Your task to perform on an android device: See recent photos Image 0: 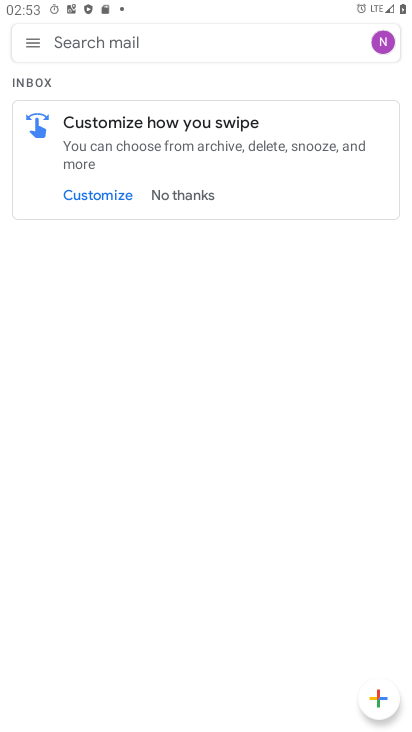
Step 0: press home button
Your task to perform on an android device: See recent photos Image 1: 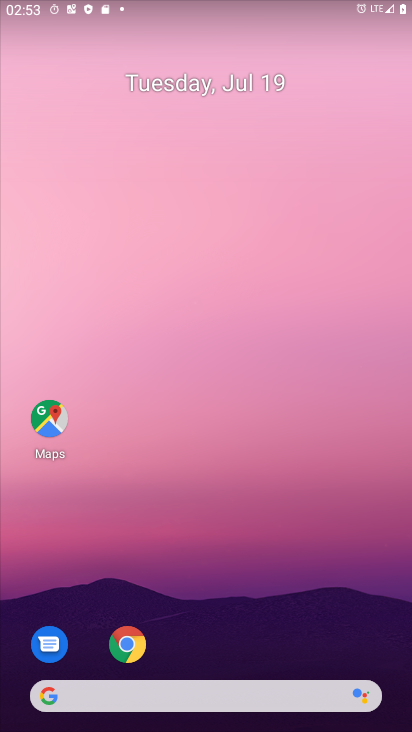
Step 1: drag from (231, 721) to (229, 252)
Your task to perform on an android device: See recent photos Image 2: 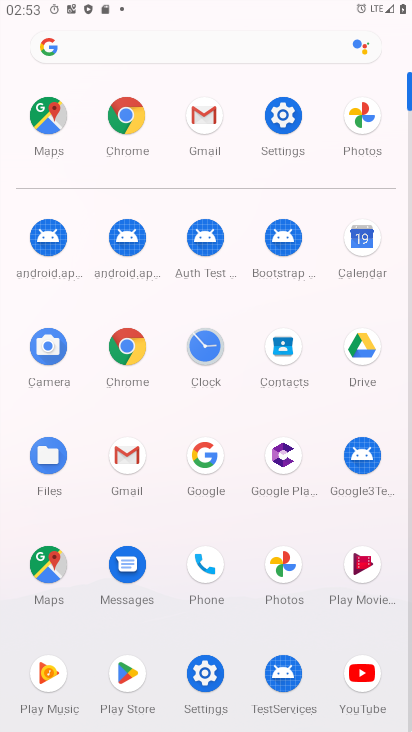
Step 2: click (284, 560)
Your task to perform on an android device: See recent photos Image 3: 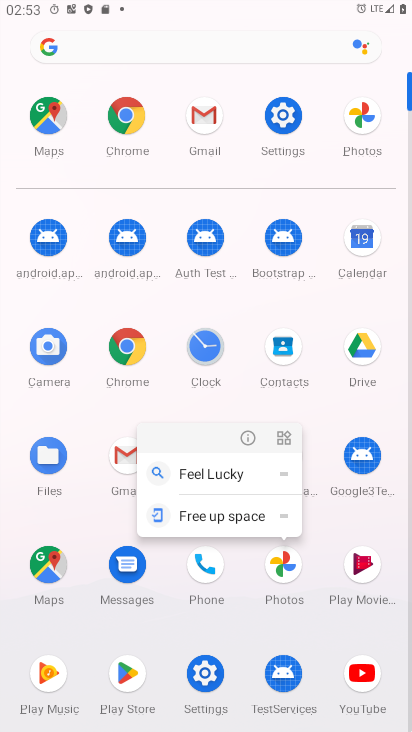
Step 3: click (283, 555)
Your task to perform on an android device: See recent photos Image 4: 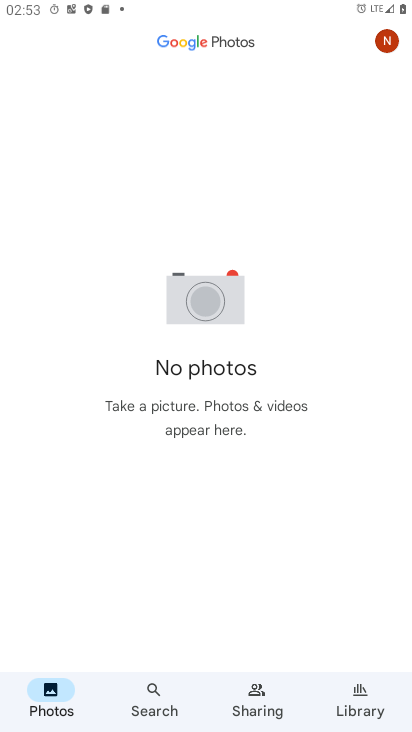
Step 4: click (55, 693)
Your task to perform on an android device: See recent photos Image 5: 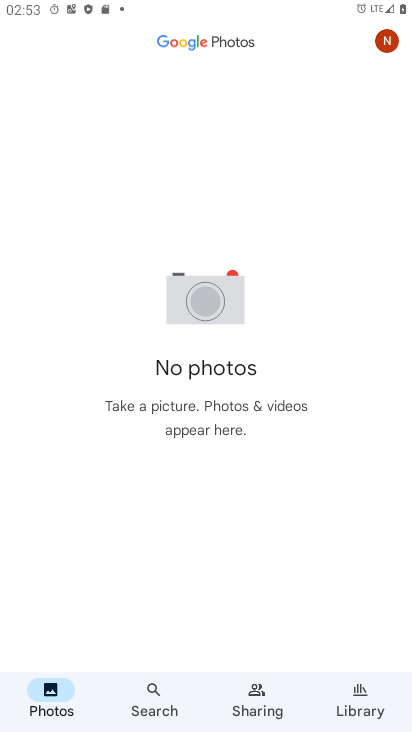
Step 5: task complete